Your task to perform on an android device: Open Chrome and go to the settings page Image 0: 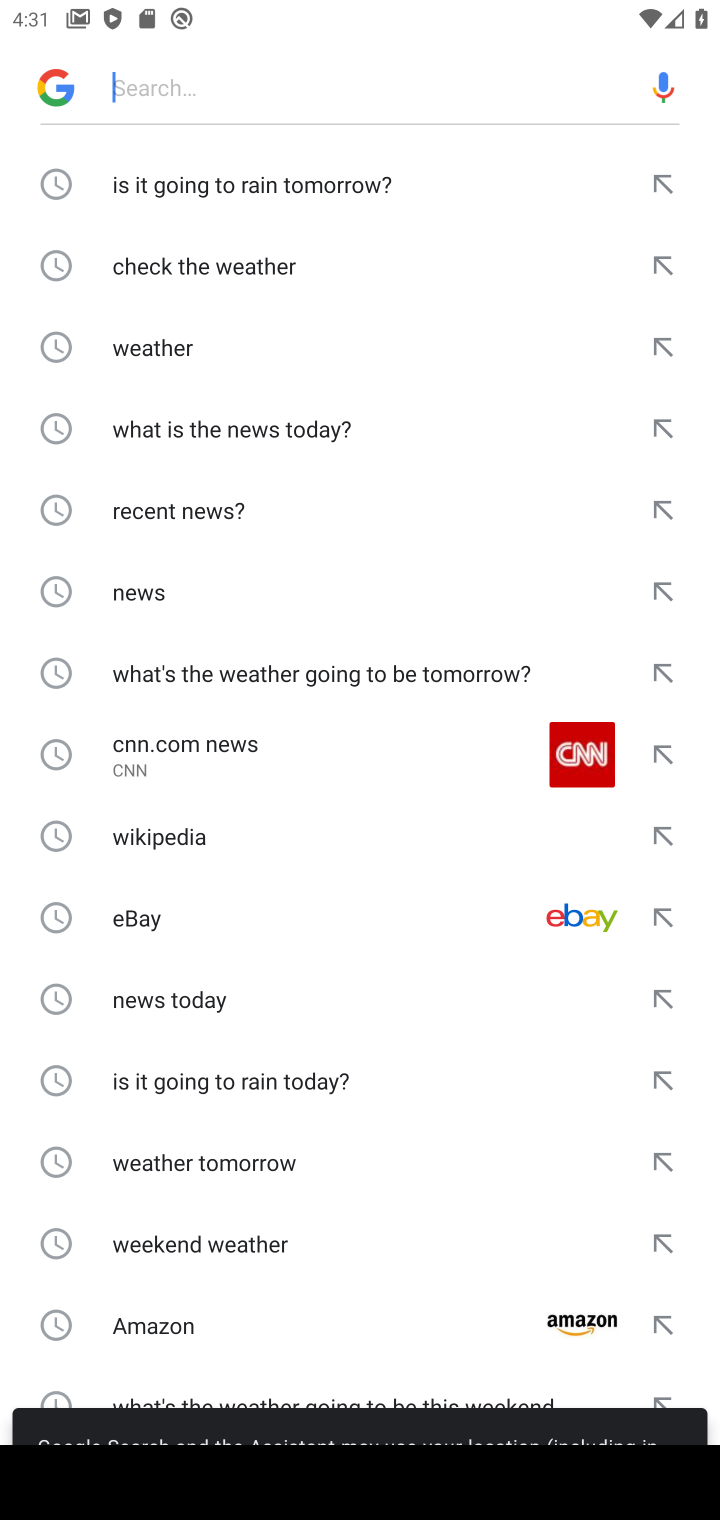
Step 0: press home button
Your task to perform on an android device: Open Chrome and go to the settings page Image 1: 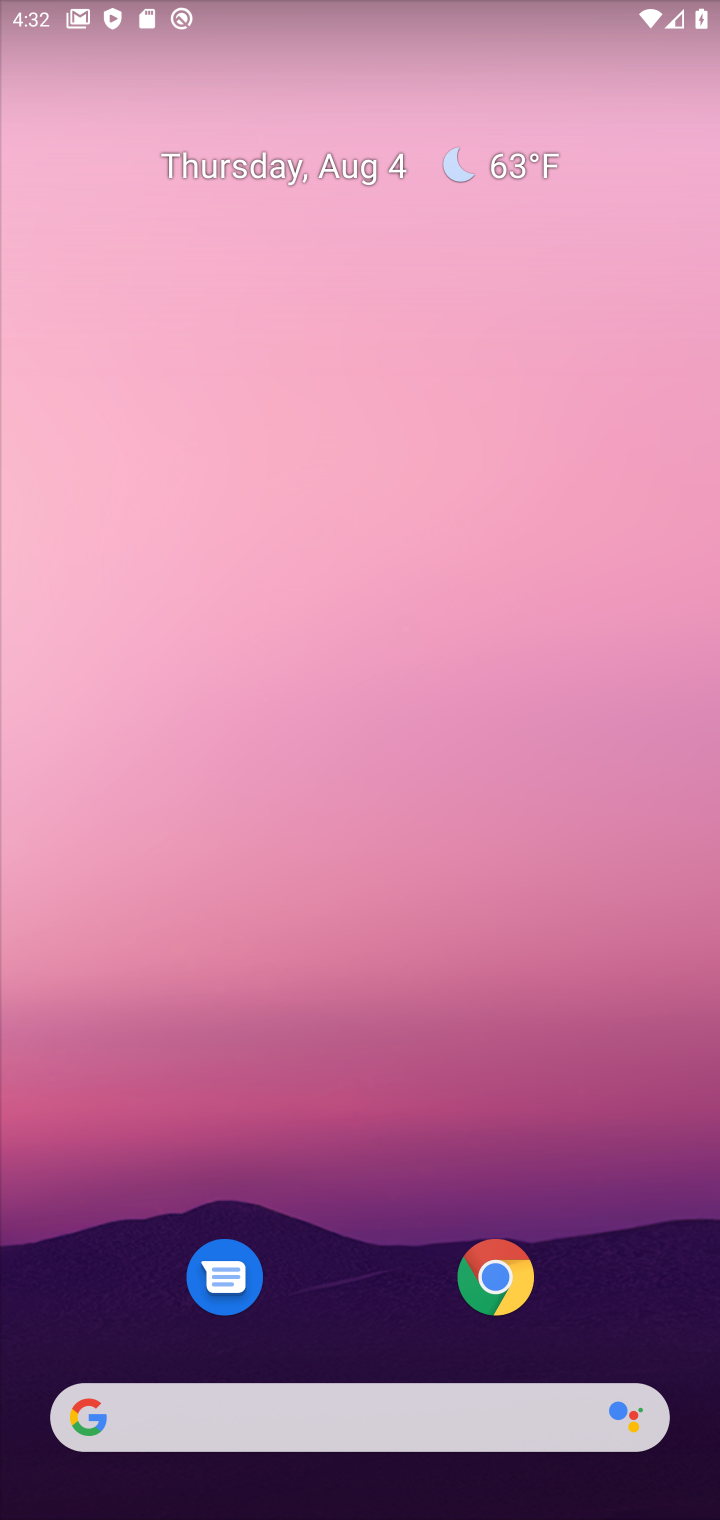
Step 1: drag from (371, 1186) to (516, 37)
Your task to perform on an android device: Open Chrome and go to the settings page Image 2: 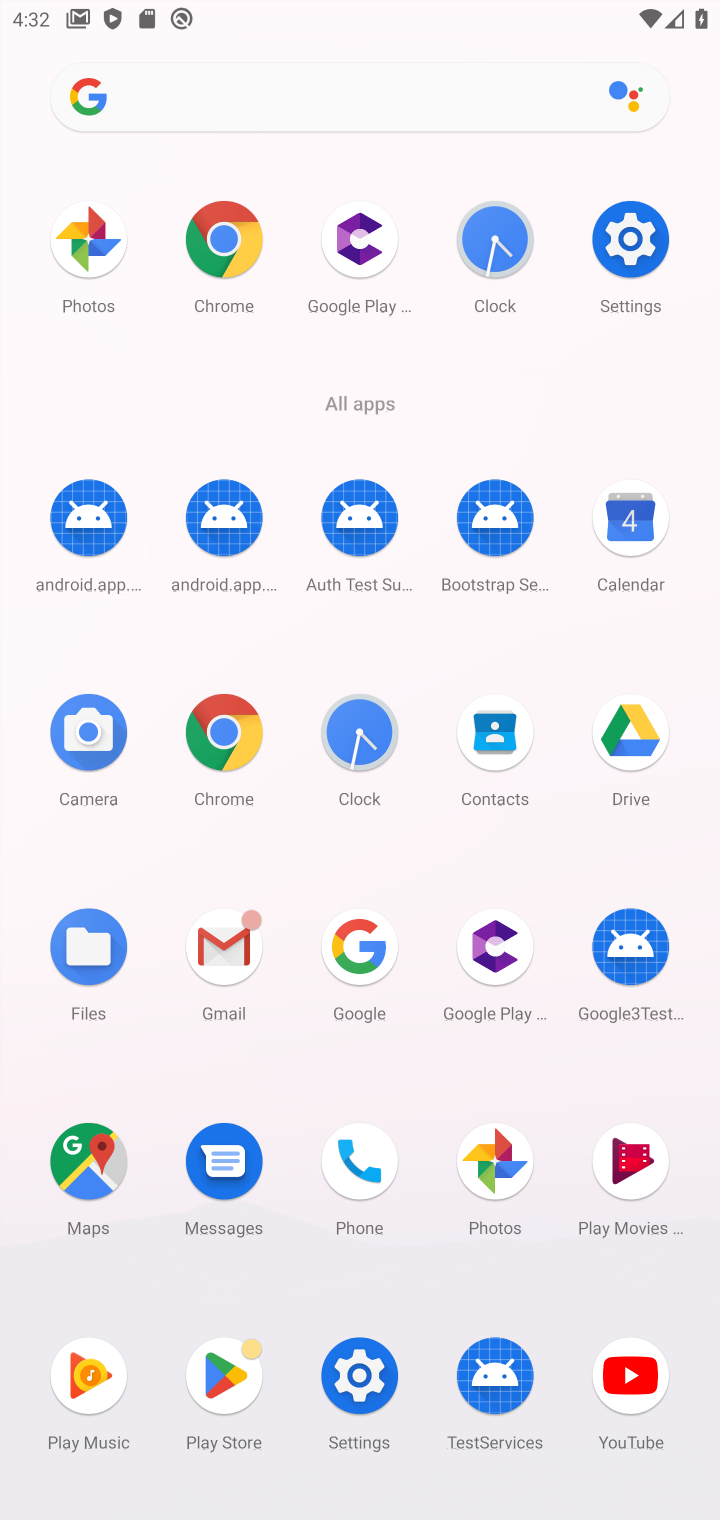
Step 2: click (243, 257)
Your task to perform on an android device: Open Chrome and go to the settings page Image 3: 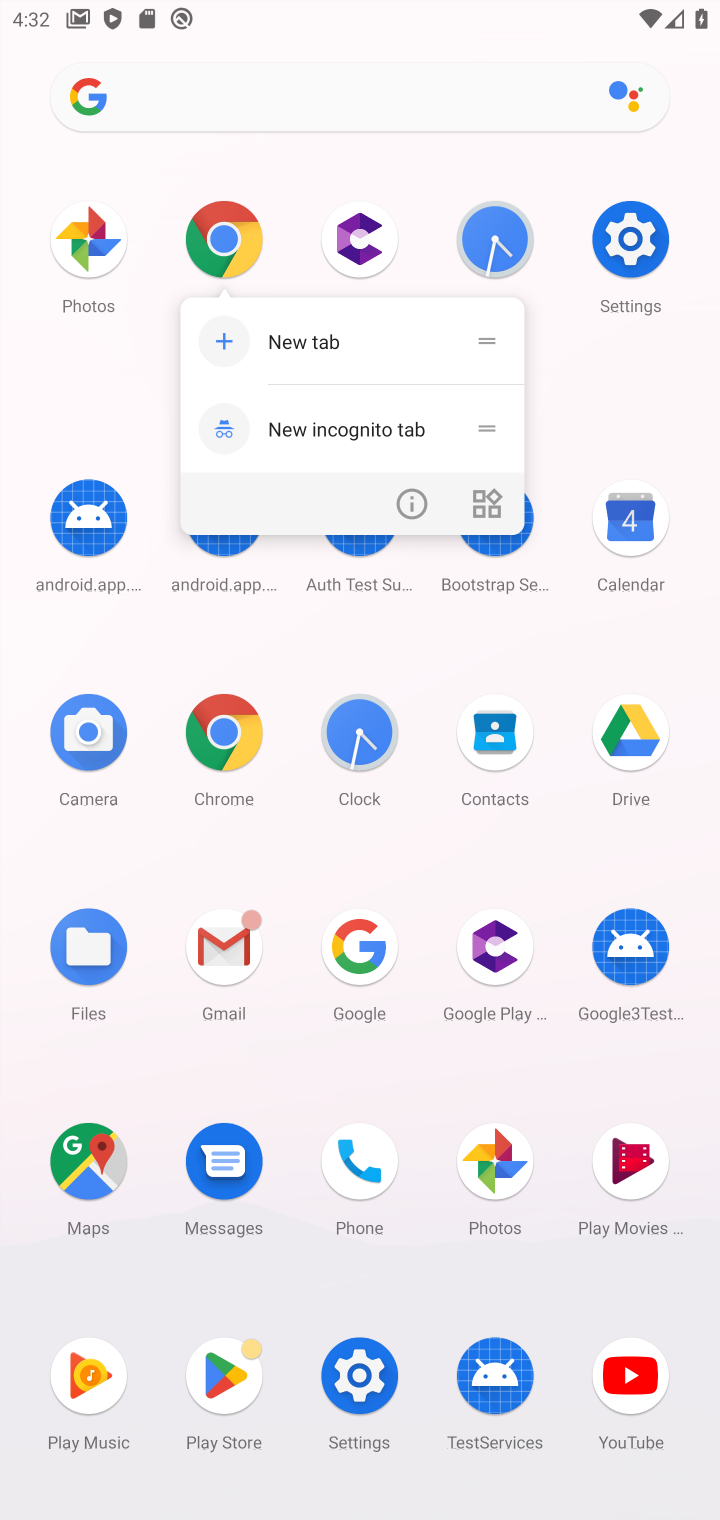
Step 3: click (198, 189)
Your task to perform on an android device: Open Chrome and go to the settings page Image 4: 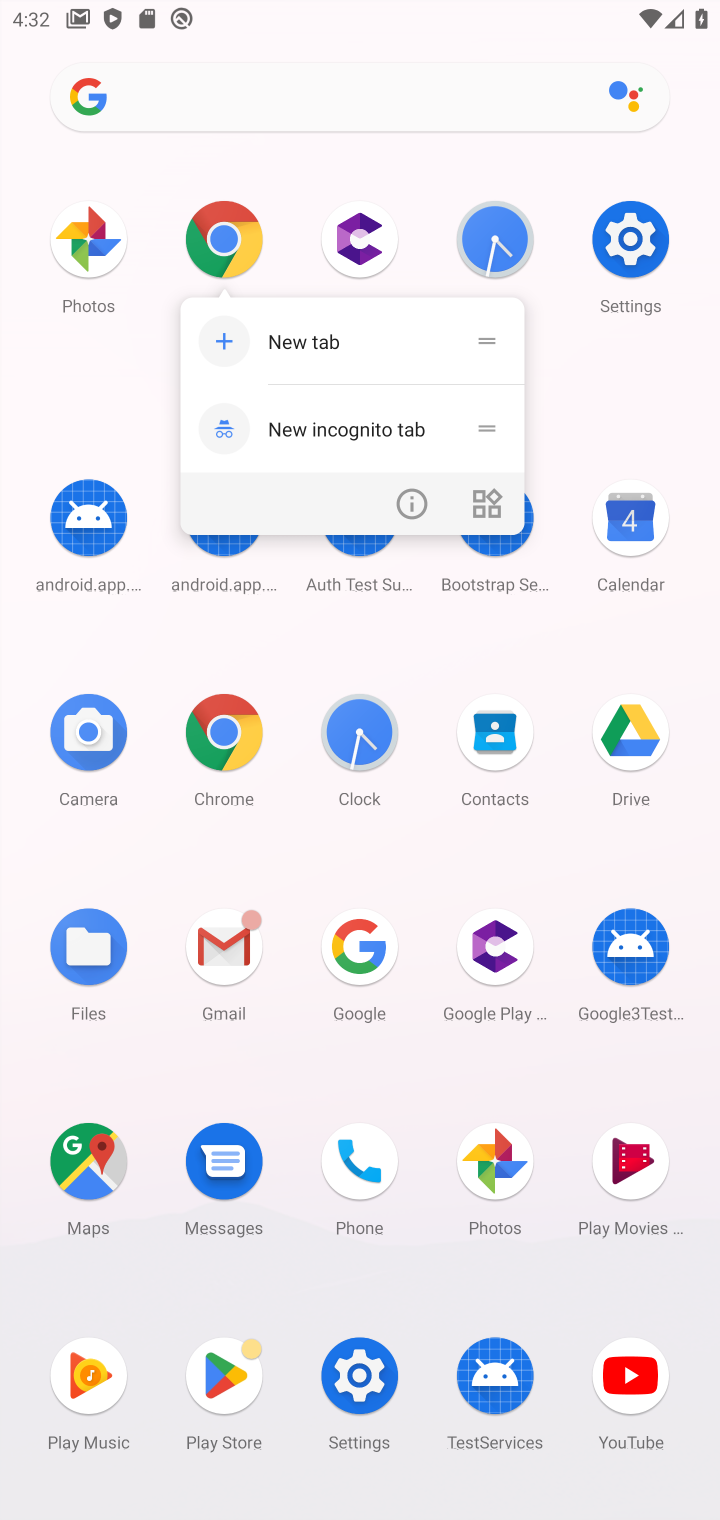
Step 4: click (198, 187)
Your task to perform on an android device: Open Chrome and go to the settings page Image 5: 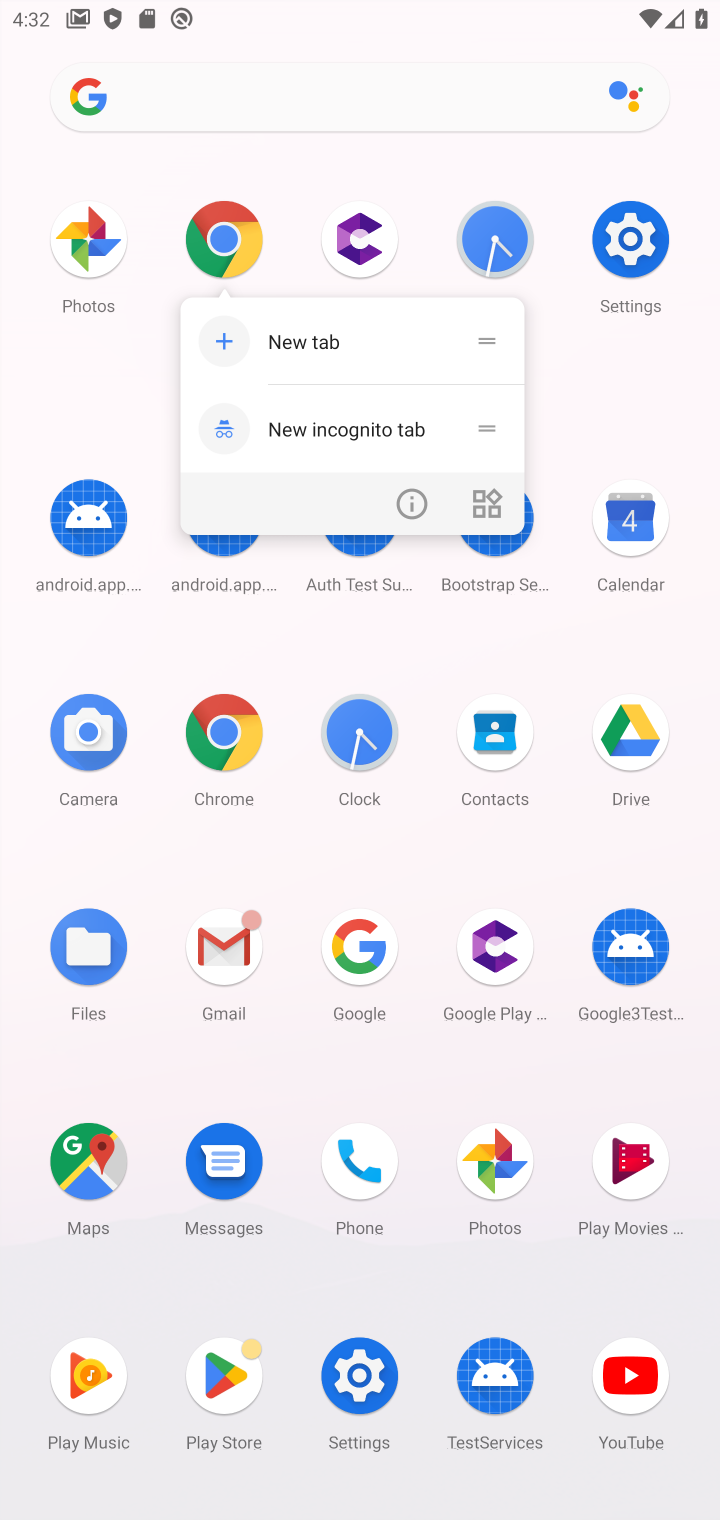
Step 5: click (224, 241)
Your task to perform on an android device: Open Chrome and go to the settings page Image 6: 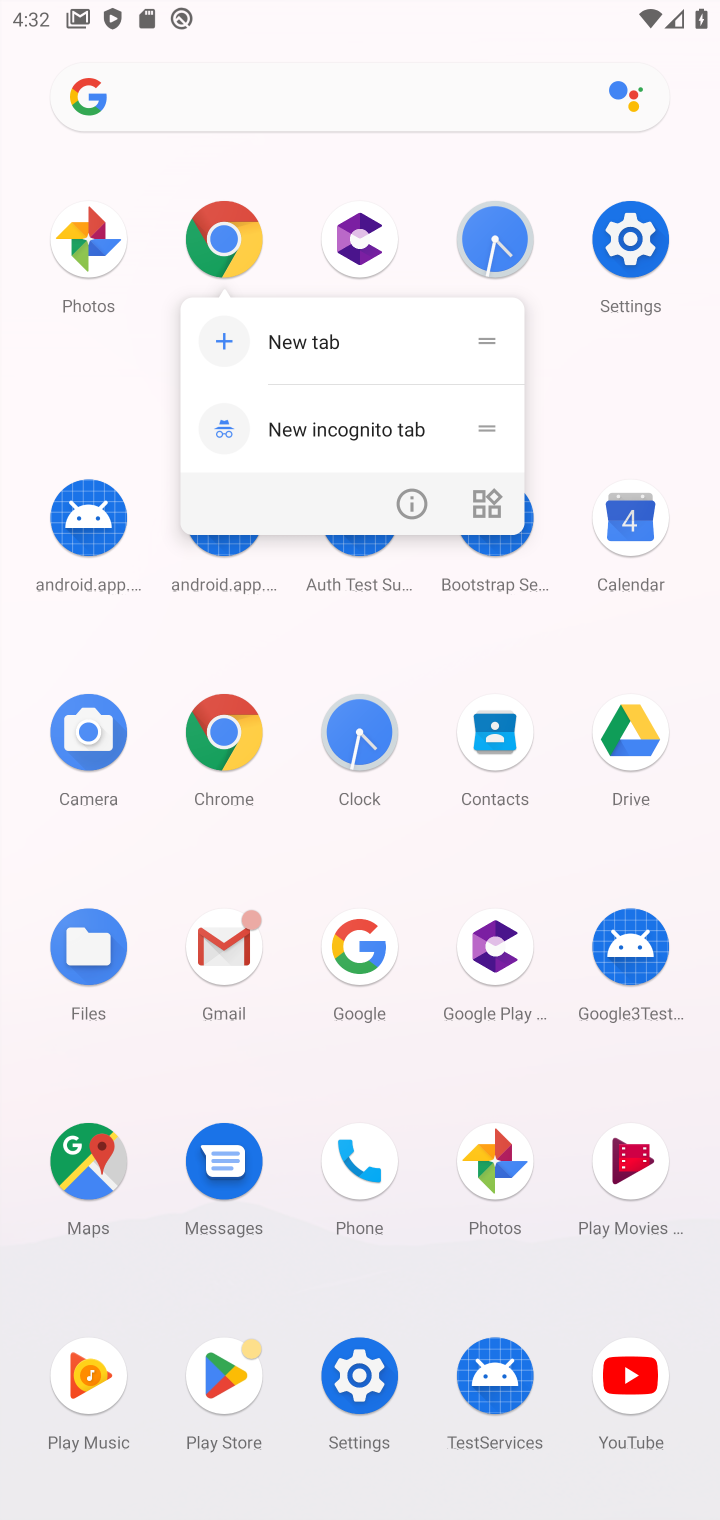
Step 6: click (224, 239)
Your task to perform on an android device: Open Chrome and go to the settings page Image 7: 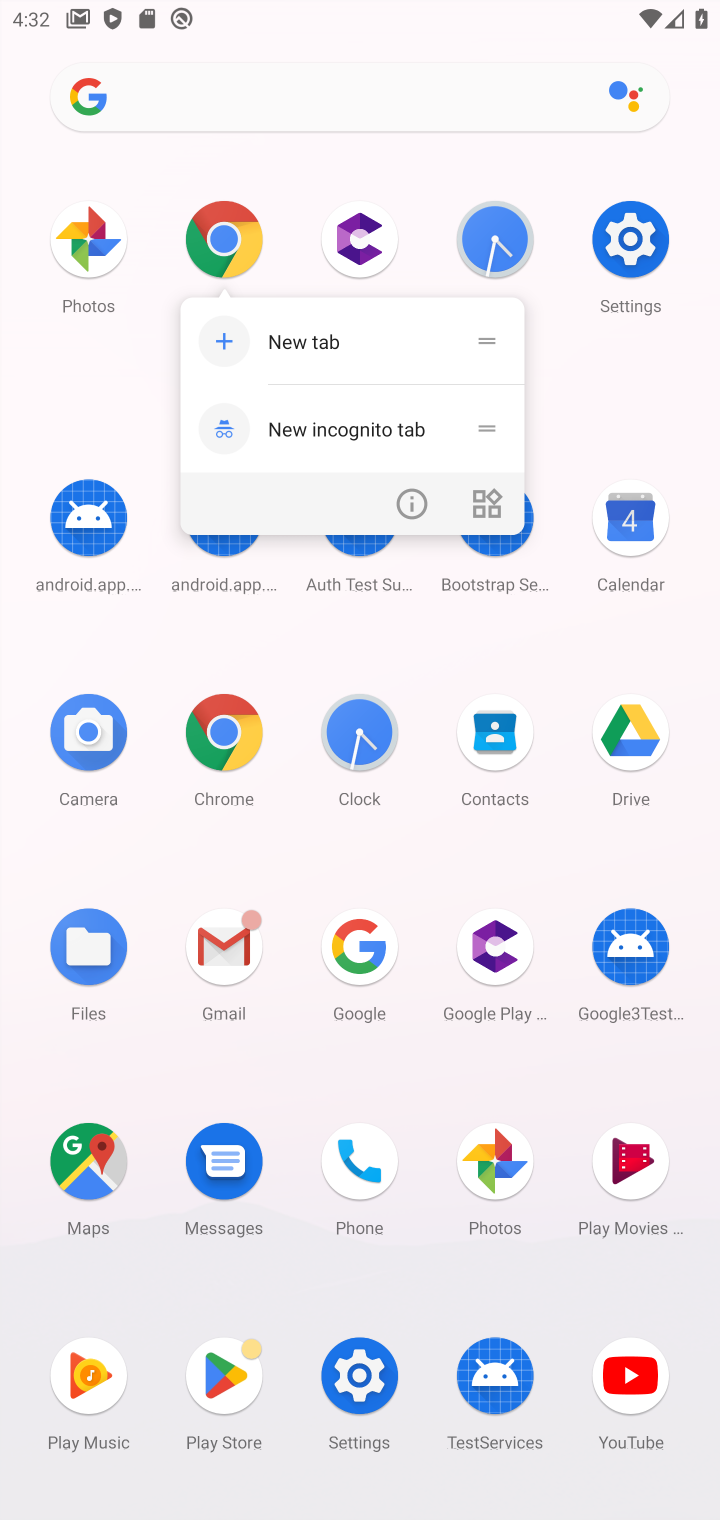
Step 7: click (224, 239)
Your task to perform on an android device: Open Chrome and go to the settings page Image 8: 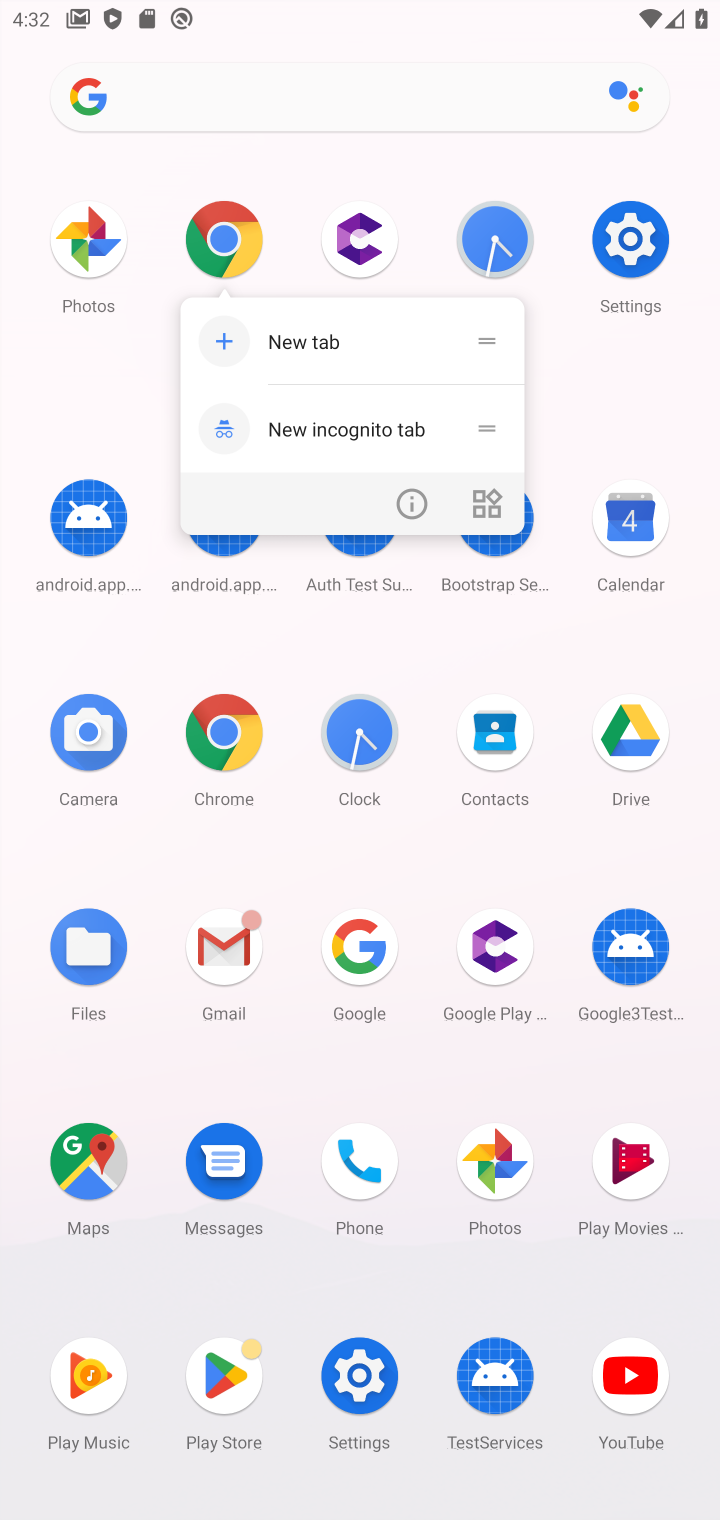
Step 8: click (224, 236)
Your task to perform on an android device: Open Chrome and go to the settings page Image 9: 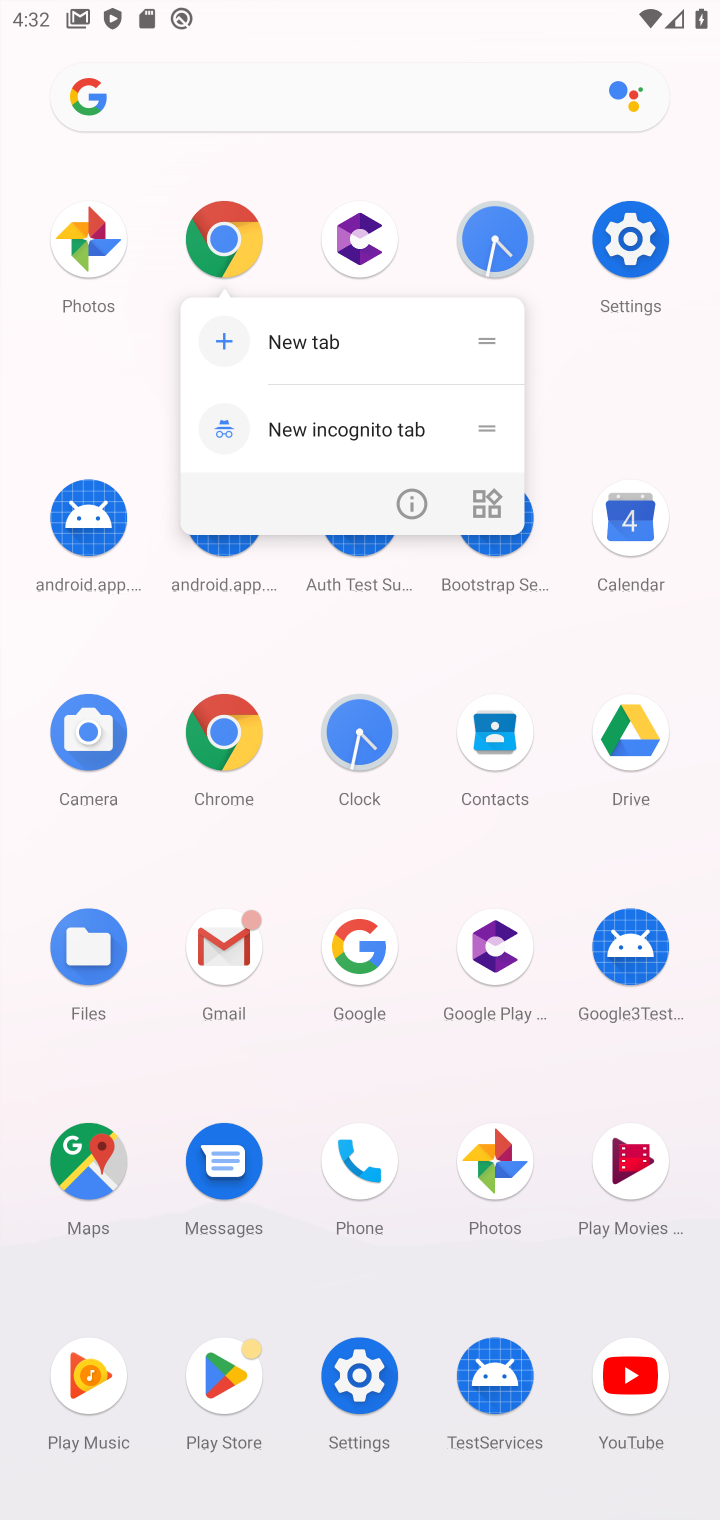
Step 9: click (224, 236)
Your task to perform on an android device: Open Chrome and go to the settings page Image 10: 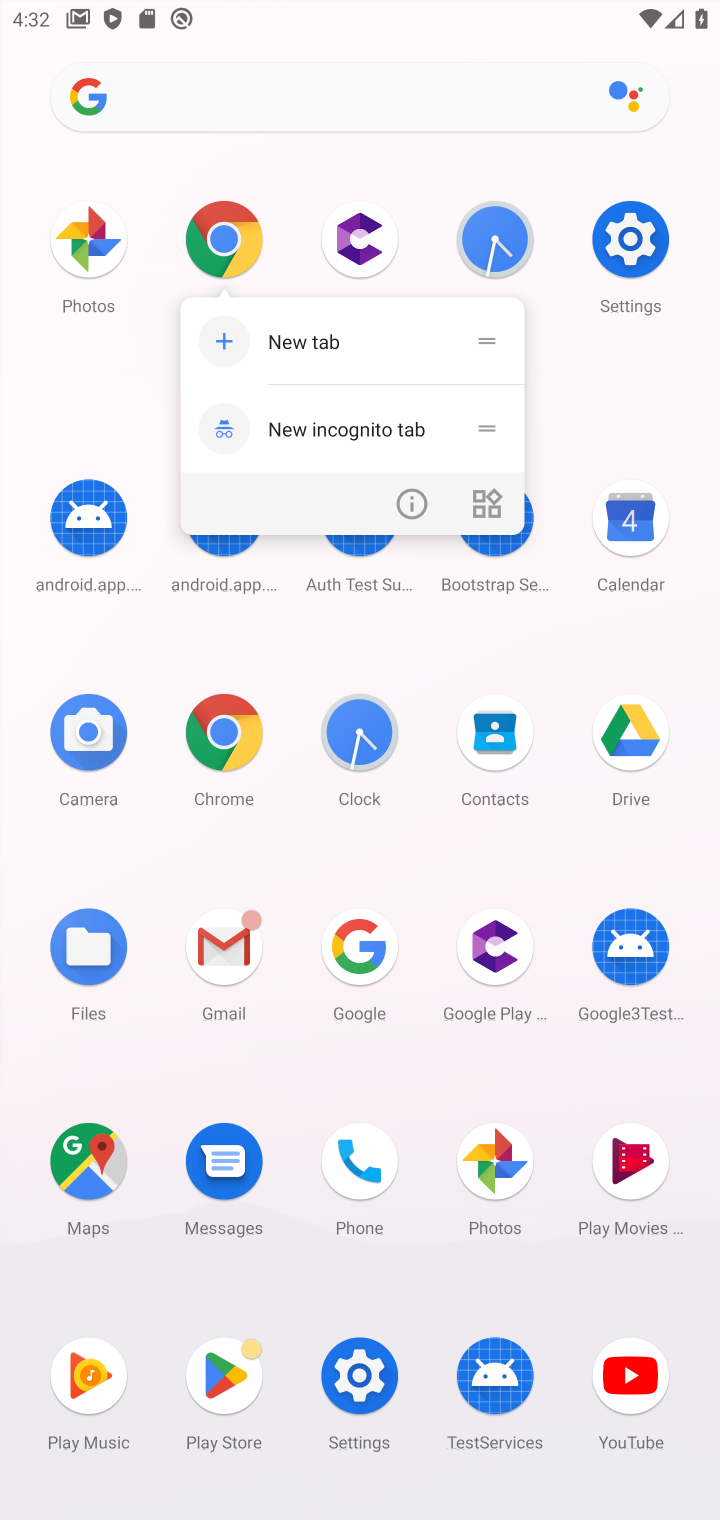
Step 10: click (224, 232)
Your task to perform on an android device: Open Chrome and go to the settings page Image 11: 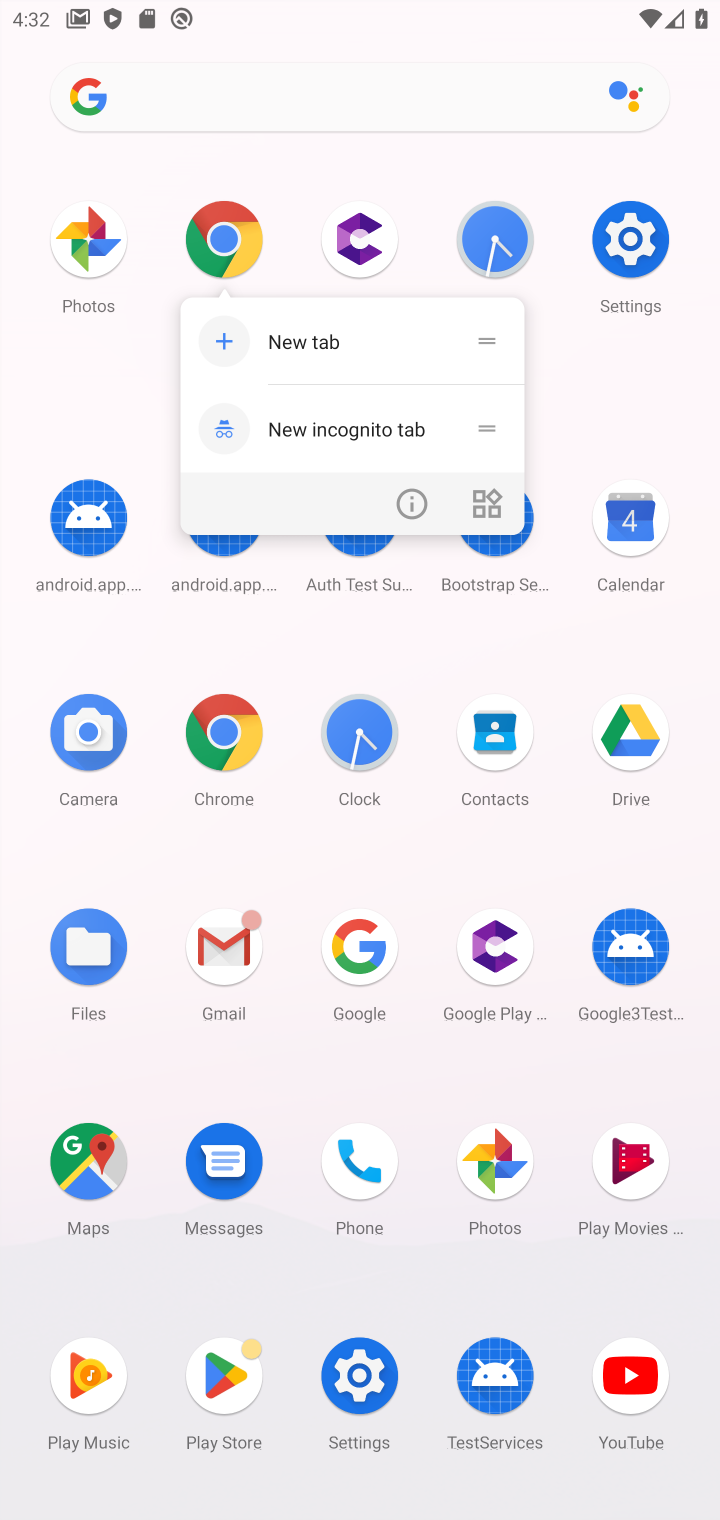
Step 11: click (224, 229)
Your task to perform on an android device: Open Chrome and go to the settings page Image 12: 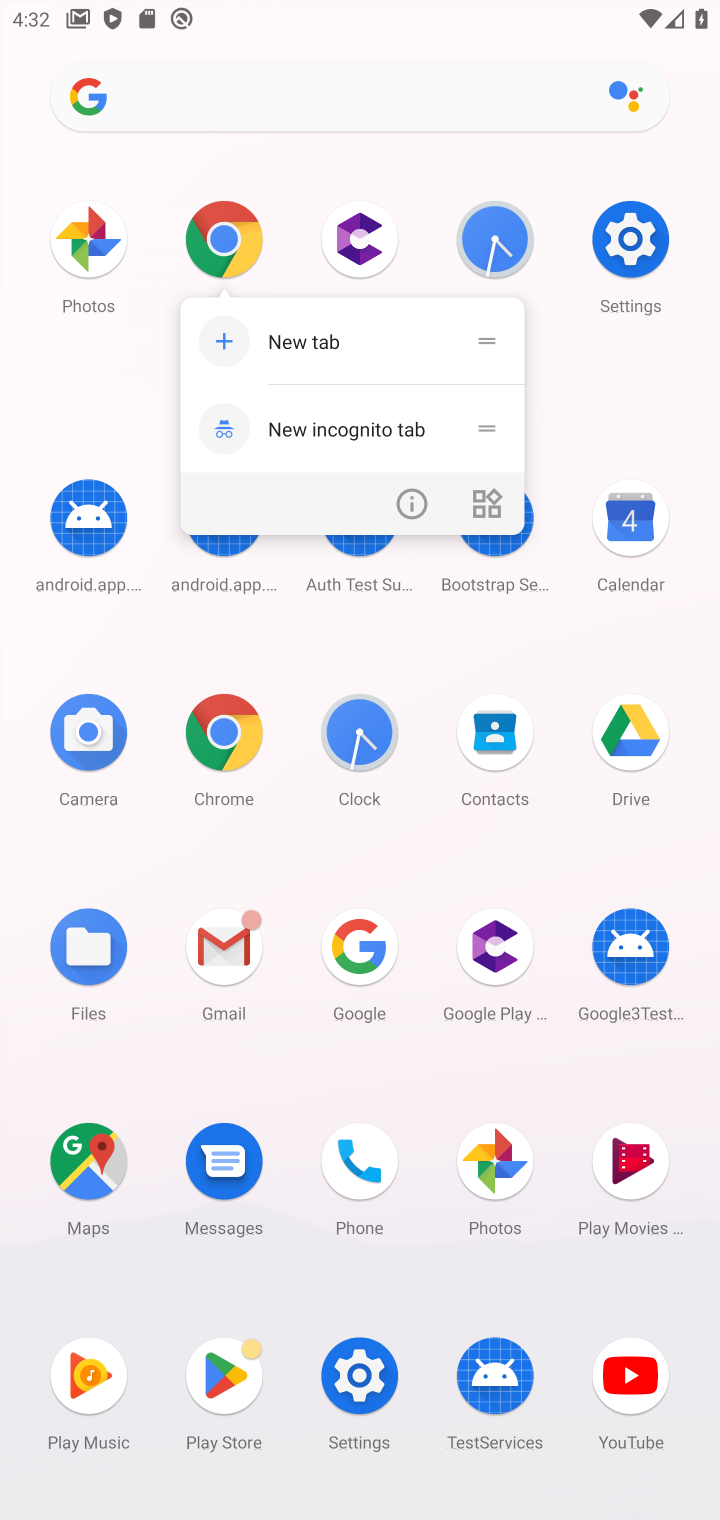
Step 12: click (224, 227)
Your task to perform on an android device: Open Chrome and go to the settings page Image 13: 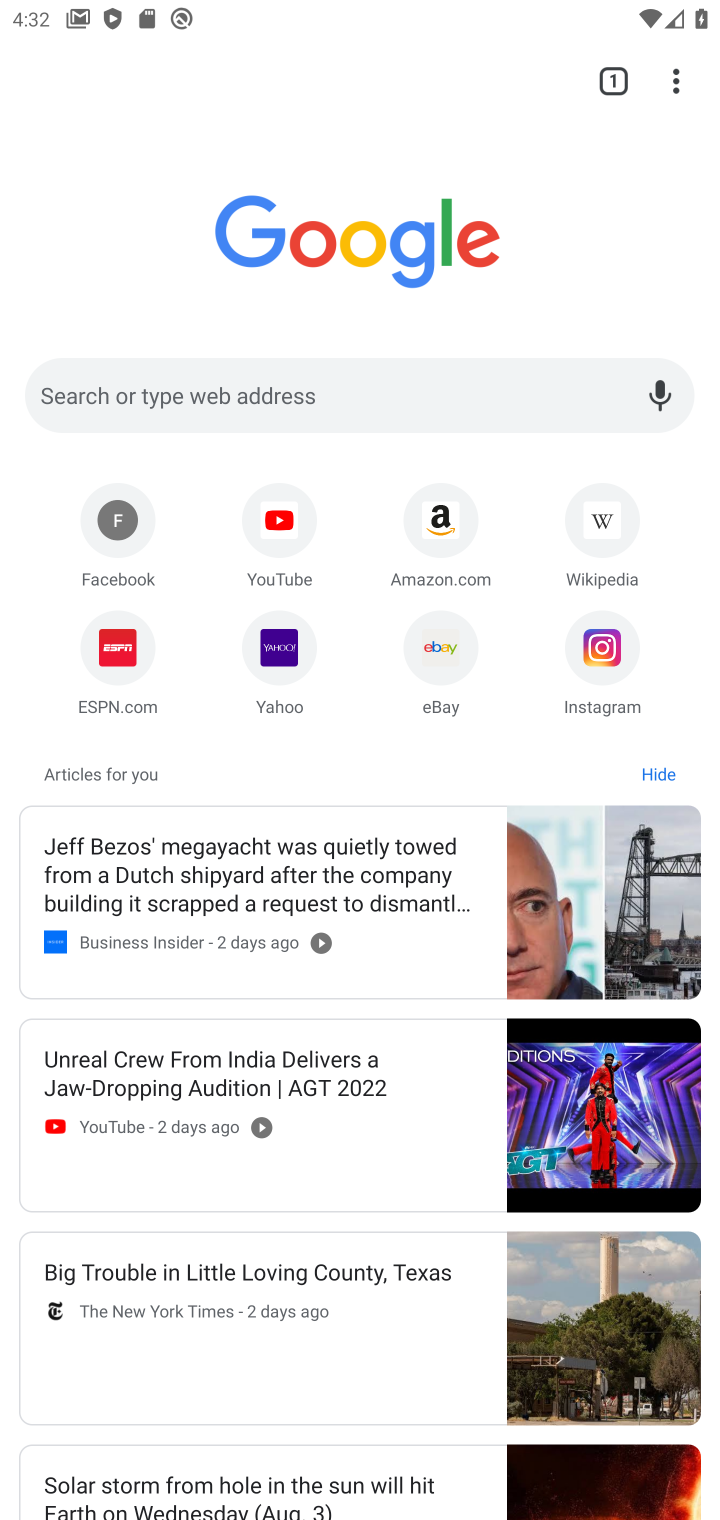
Step 13: task complete